Your task to perform on an android device: toggle translation in the chrome app Image 0: 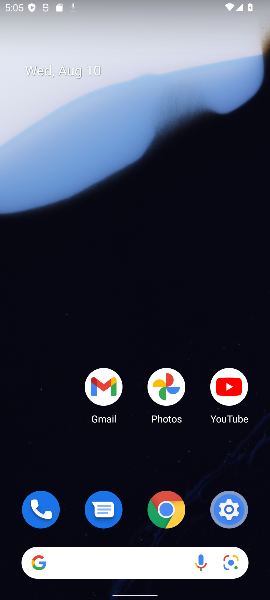
Step 0: drag from (135, 464) to (146, 107)
Your task to perform on an android device: toggle translation in the chrome app Image 1: 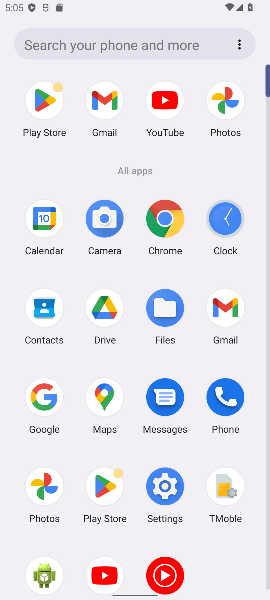
Step 1: click (163, 216)
Your task to perform on an android device: toggle translation in the chrome app Image 2: 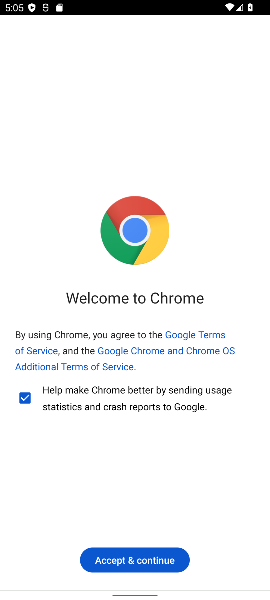
Step 2: click (145, 555)
Your task to perform on an android device: toggle translation in the chrome app Image 3: 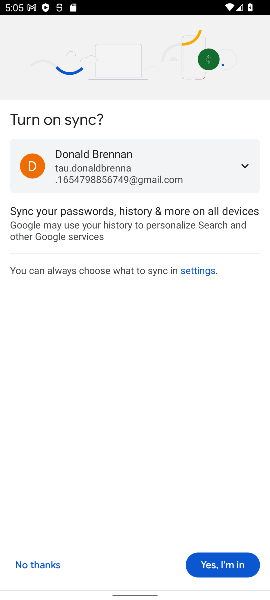
Step 3: click (216, 566)
Your task to perform on an android device: toggle translation in the chrome app Image 4: 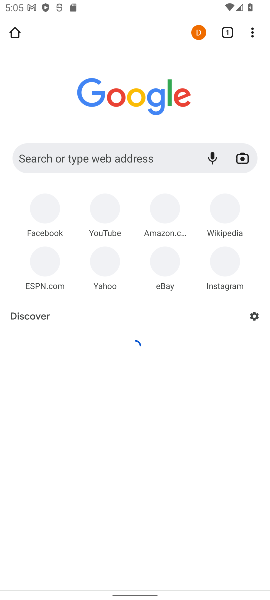
Step 4: drag from (260, 27) to (183, 304)
Your task to perform on an android device: toggle translation in the chrome app Image 5: 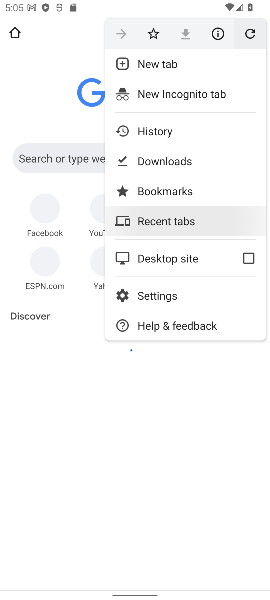
Step 5: click (182, 303)
Your task to perform on an android device: toggle translation in the chrome app Image 6: 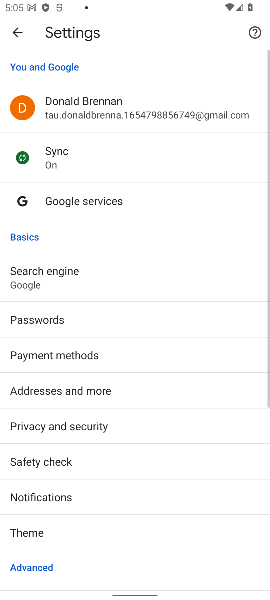
Step 6: drag from (118, 536) to (163, 241)
Your task to perform on an android device: toggle translation in the chrome app Image 7: 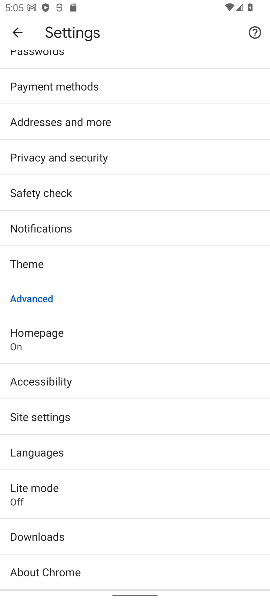
Step 7: click (48, 454)
Your task to perform on an android device: toggle translation in the chrome app Image 8: 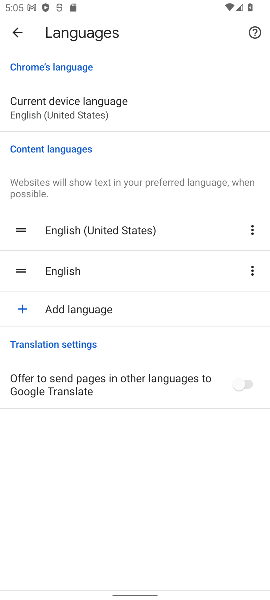
Step 8: click (229, 382)
Your task to perform on an android device: toggle translation in the chrome app Image 9: 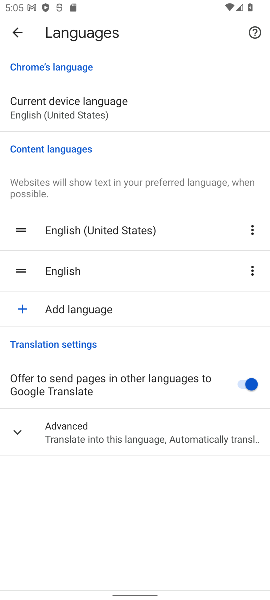
Step 9: task complete